Your task to perform on an android device: What's the news about the US economy? Image 0: 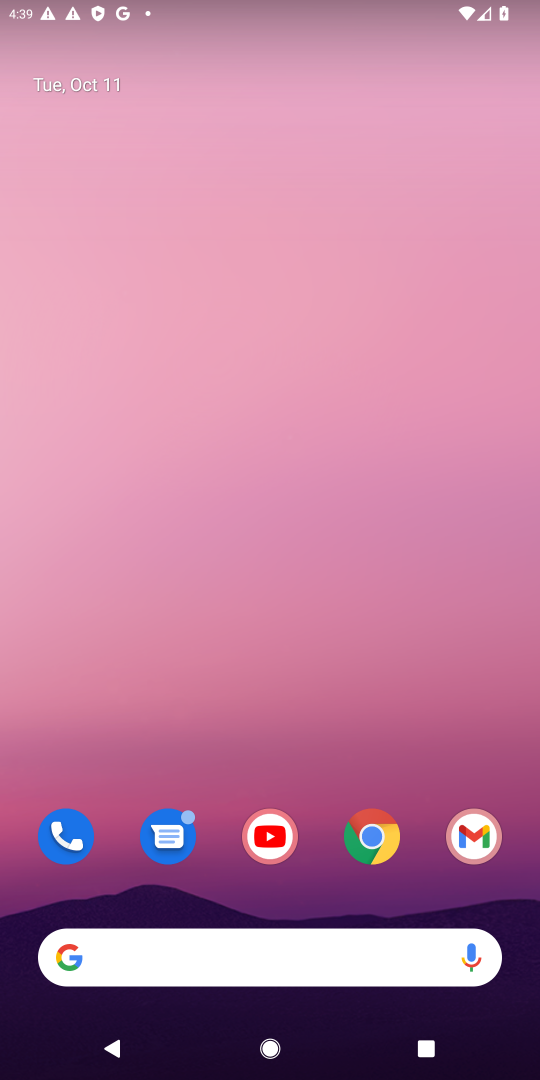
Step 0: click (383, 840)
Your task to perform on an android device: What's the news about the US economy? Image 1: 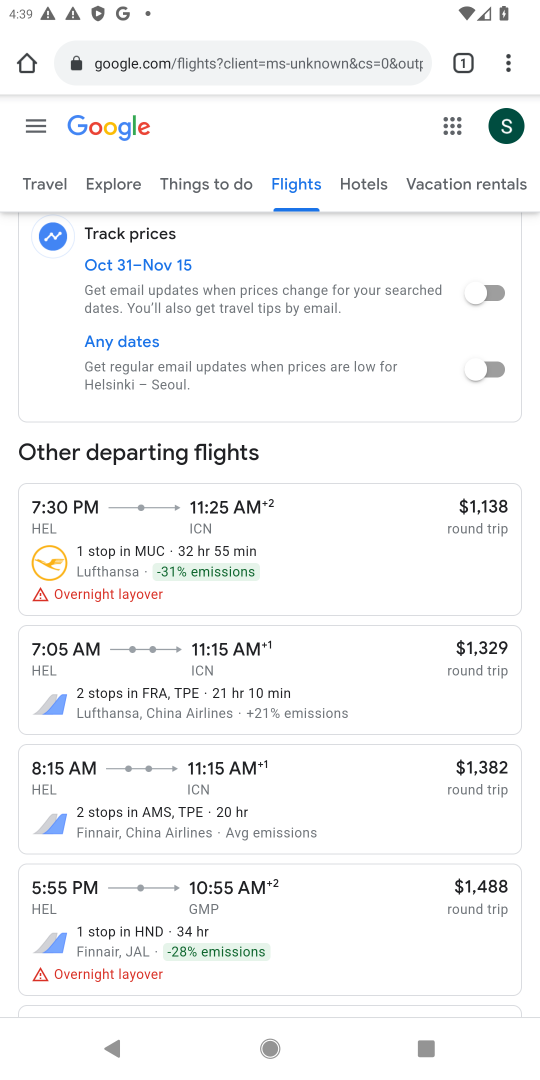
Step 1: click (333, 55)
Your task to perform on an android device: What's the news about the US economy? Image 2: 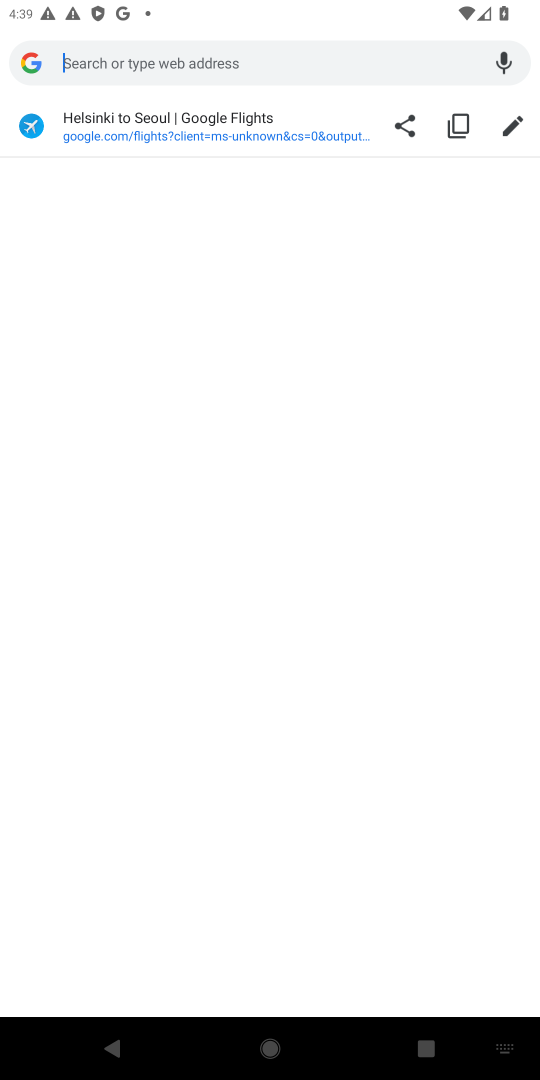
Step 2: type "news about the US economy"
Your task to perform on an android device: What's the news about the US economy? Image 3: 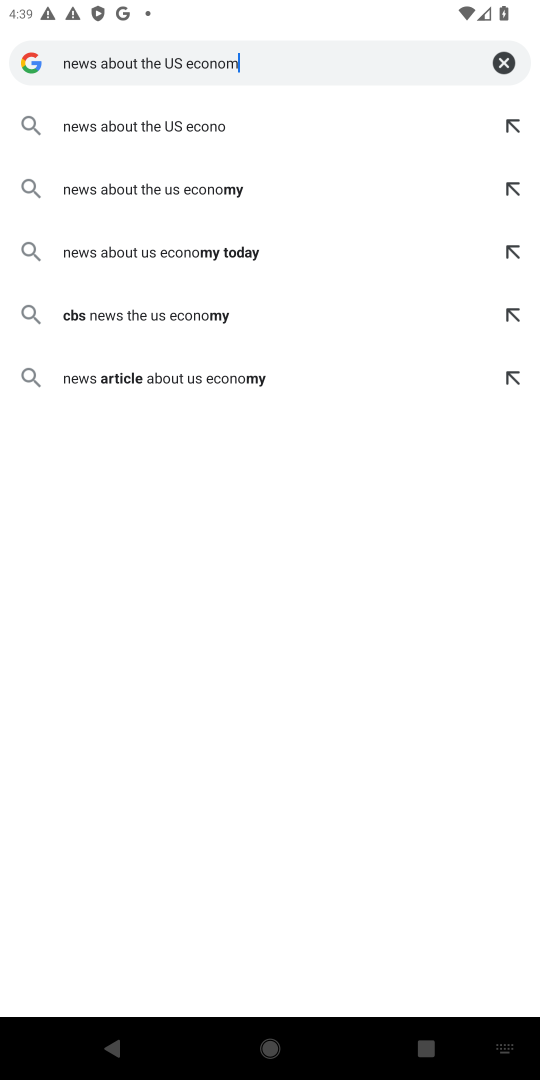
Step 3: press enter
Your task to perform on an android device: What's the news about the US economy? Image 4: 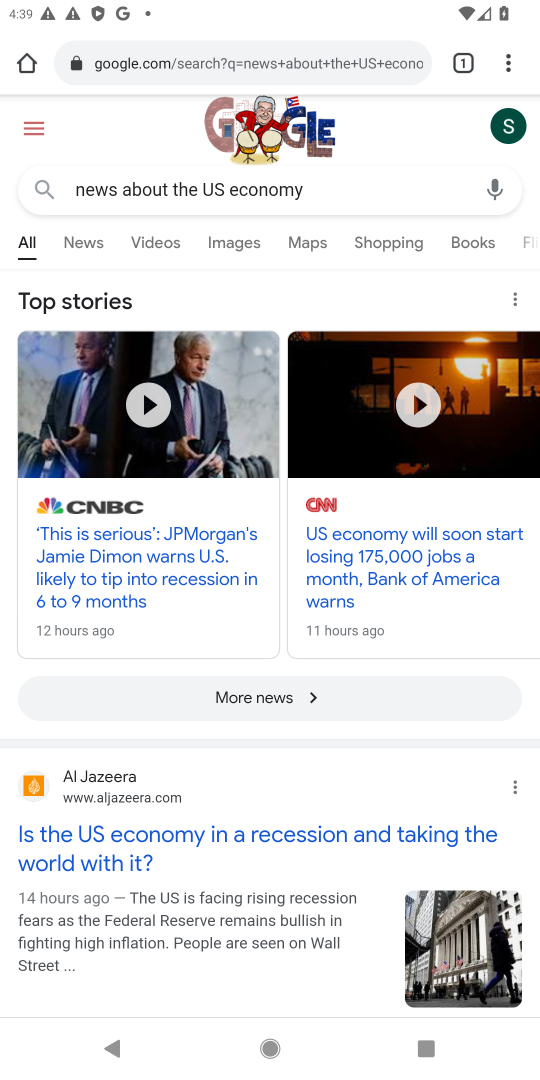
Step 4: click (89, 247)
Your task to perform on an android device: What's the news about the US economy? Image 5: 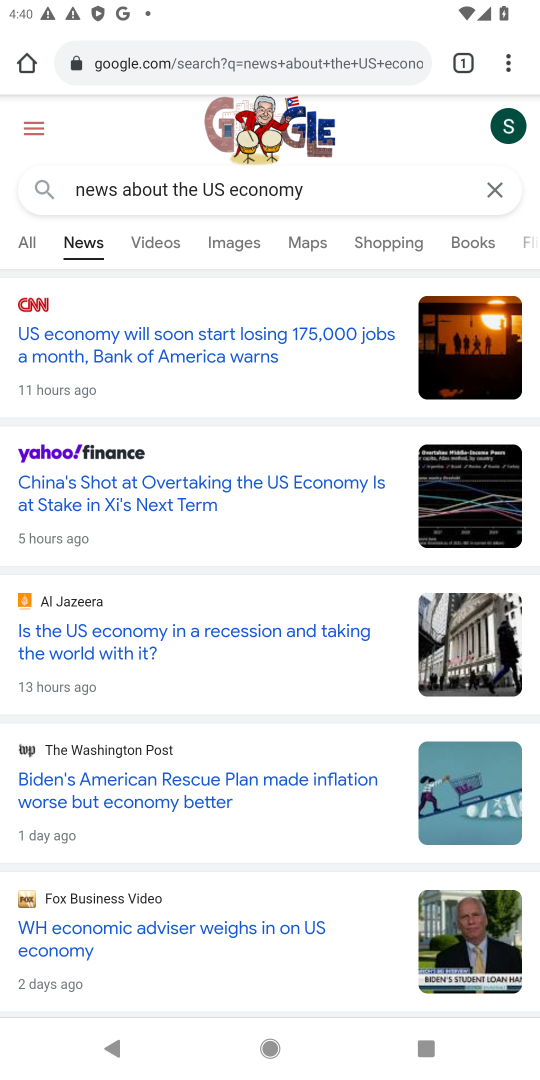
Step 5: task complete